Your task to perform on an android device: Open the calendar and show me this week's events? Image 0: 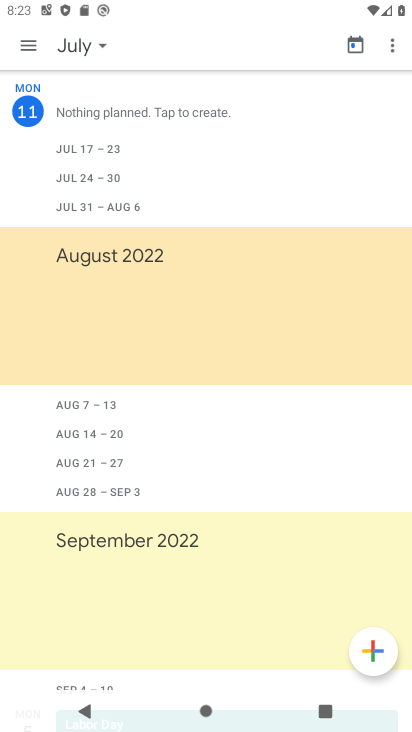
Step 0: click (89, 38)
Your task to perform on an android device: Open the calendar and show me this week's events? Image 1: 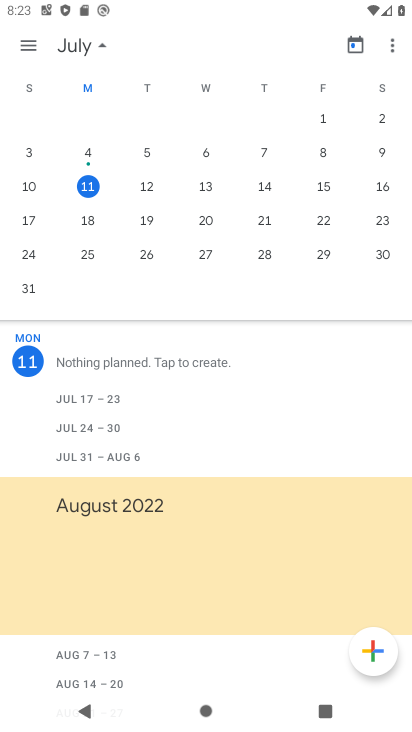
Step 1: click (90, 189)
Your task to perform on an android device: Open the calendar and show me this week's events? Image 2: 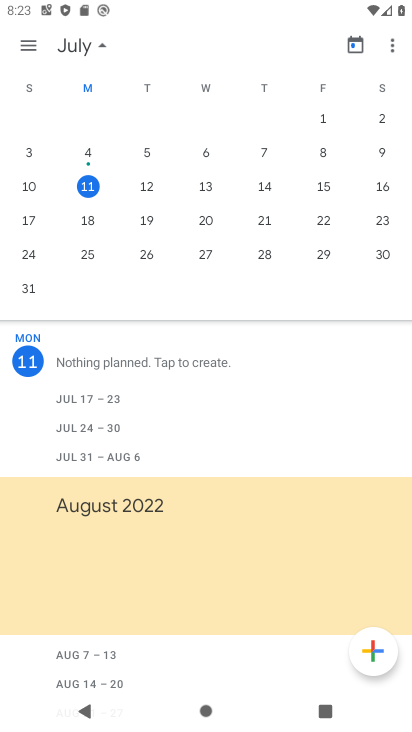
Step 2: click (150, 189)
Your task to perform on an android device: Open the calendar and show me this week's events? Image 3: 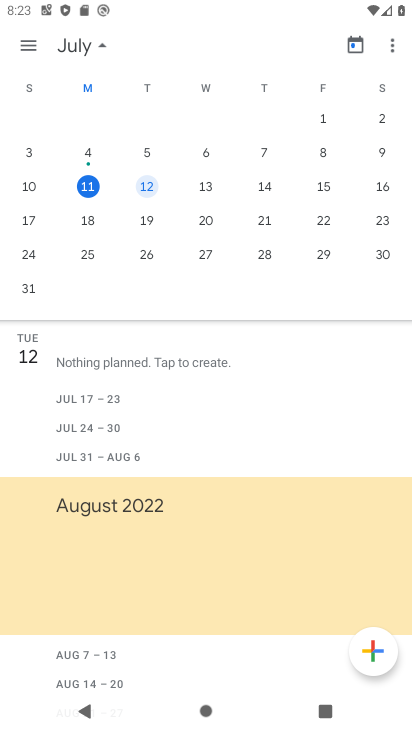
Step 3: click (199, 186)
Your task to perform on an android device: Open the calendar and show me this week's events? Image 4: 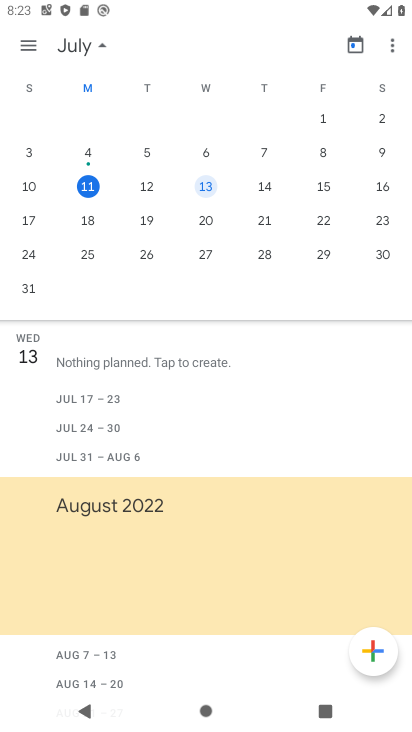
Step 4: click (262, 188)
Your task to perform on an android device: Open the calendar and show me this week's events? Image 5: 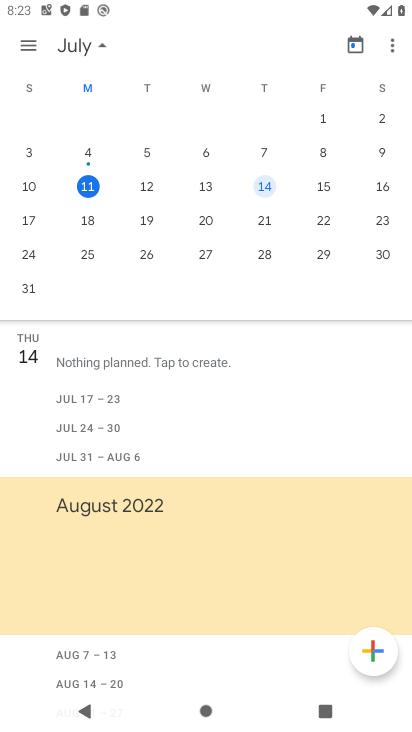
Step 5: click (330, 188)
Your task to perform on an android device: Open the calendar and show me this week's events? Image 6: 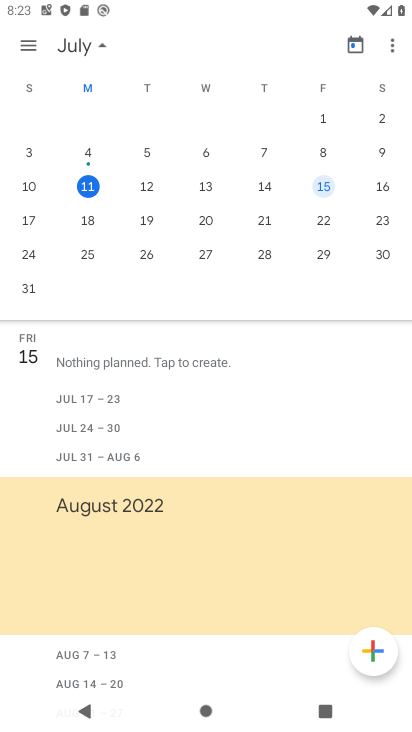
Step 6: click (385, 188)
Your task to perform on an android device: Open the calendar and show me this week's events? Image 7: 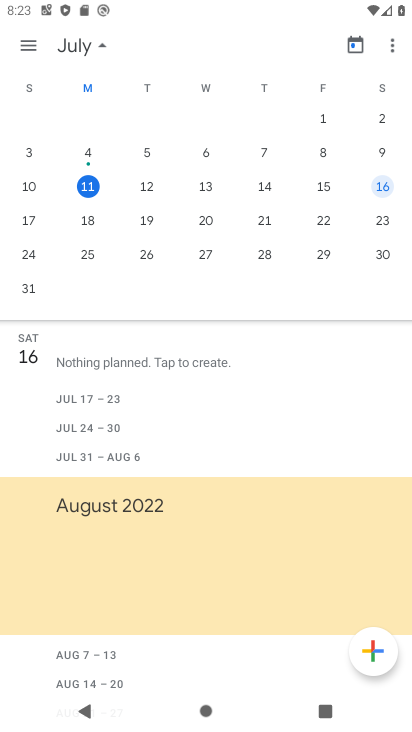
Step 7: task complete